Your task to perform on an android device: Search for pizza restaurants on Maps Image 0: 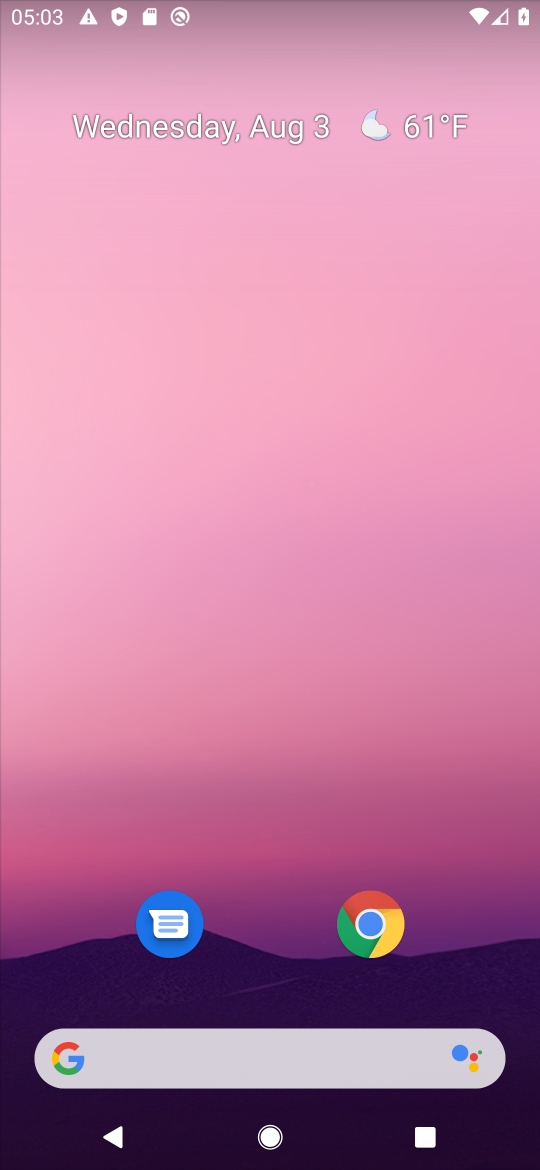
Step 0: drag from (277, 796) to (270, 282)
Your task to perform on an android device: Search for pizza restaurants on Maps Image 1: 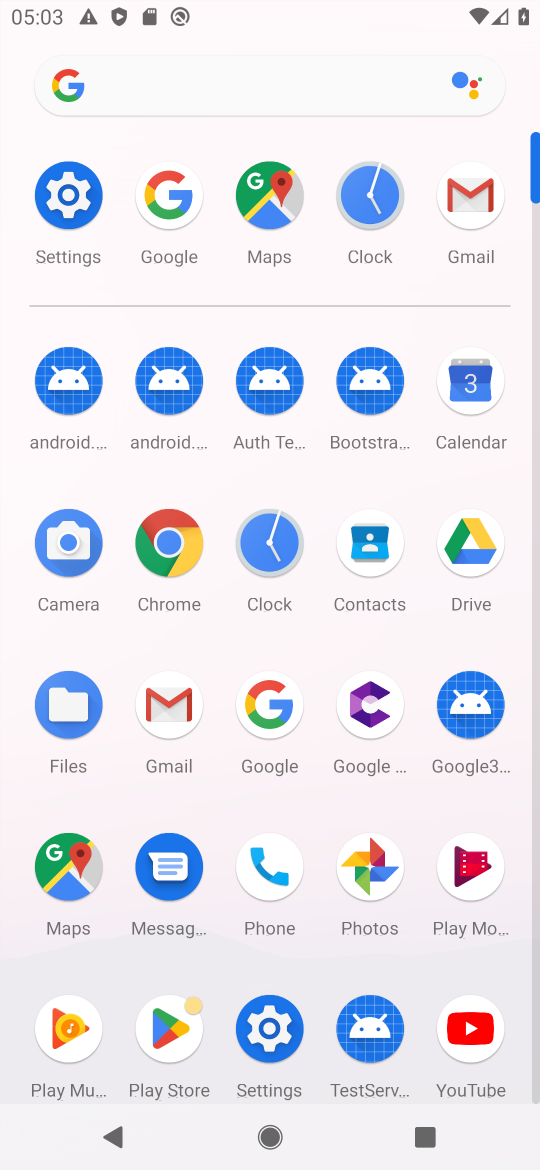
Step 1: click (252, 200)
Your task to perform on an android device: Search for pizza restaurants on Maps Image 2: 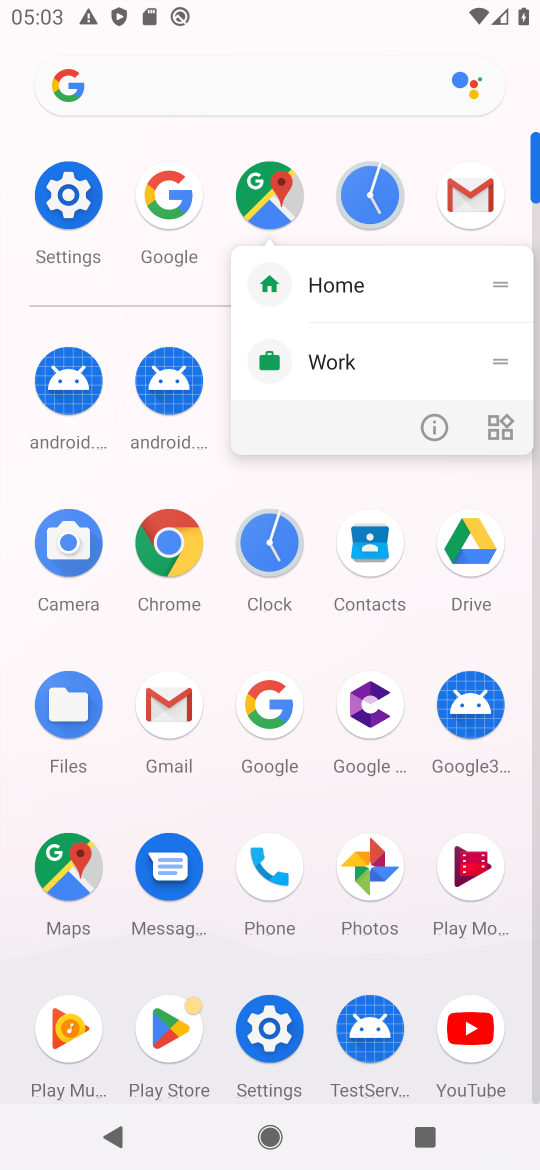
Step 2: click (252, 200)
Your task to perform on an android device: Search for pizza restaurants on Maps Image 3: 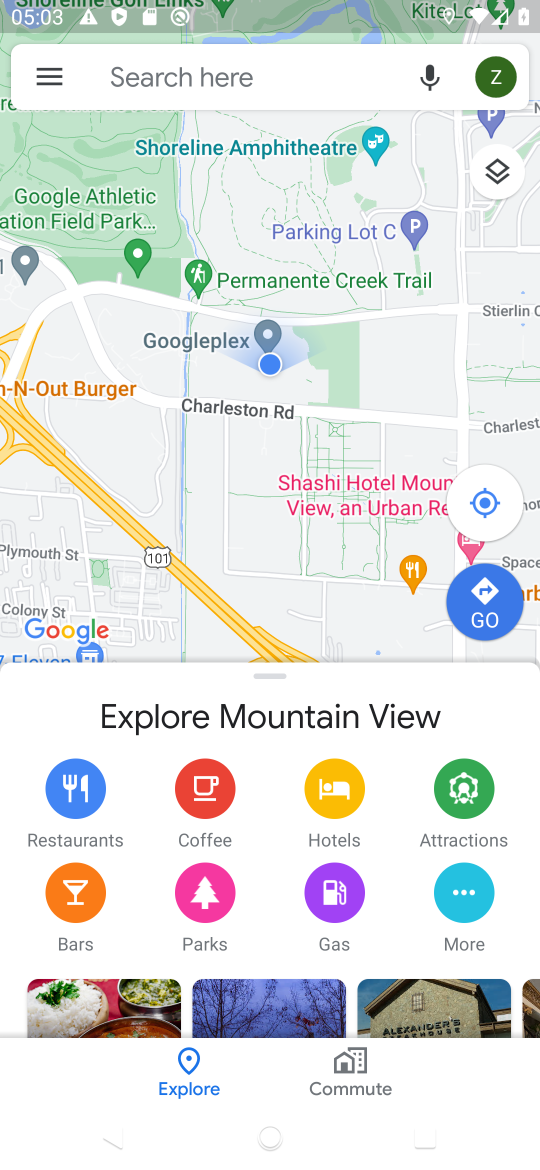
Step 3: click (243, 59)
Your task to perform on an android device: Search for pizza restaurants on Maps Image 4: 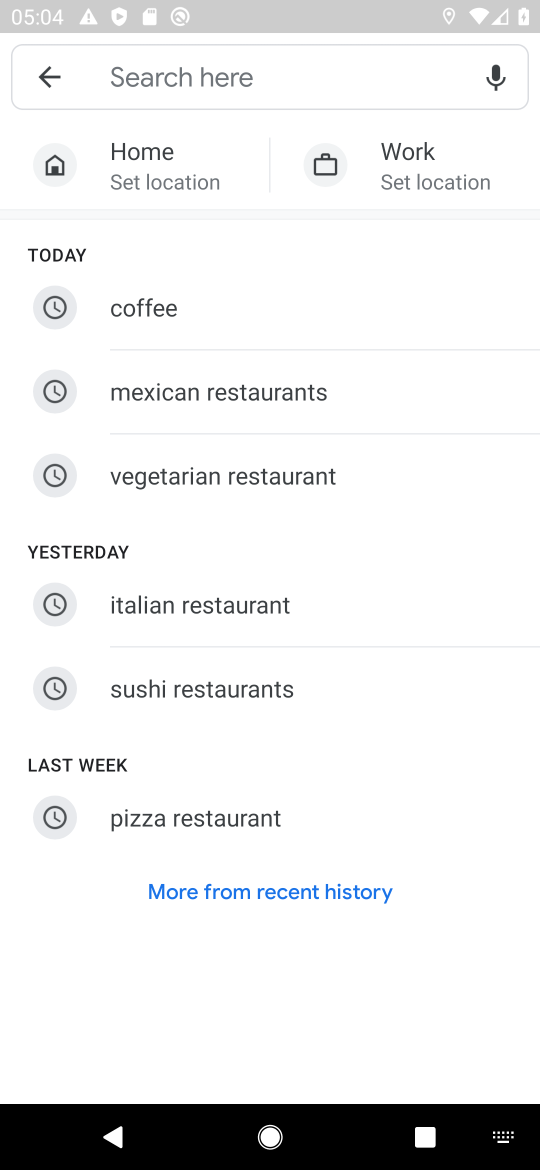
Step 4: type " pizza restaurants "
Your task to perform on an android device: Search for pizza restaurants on Maps Image 5: 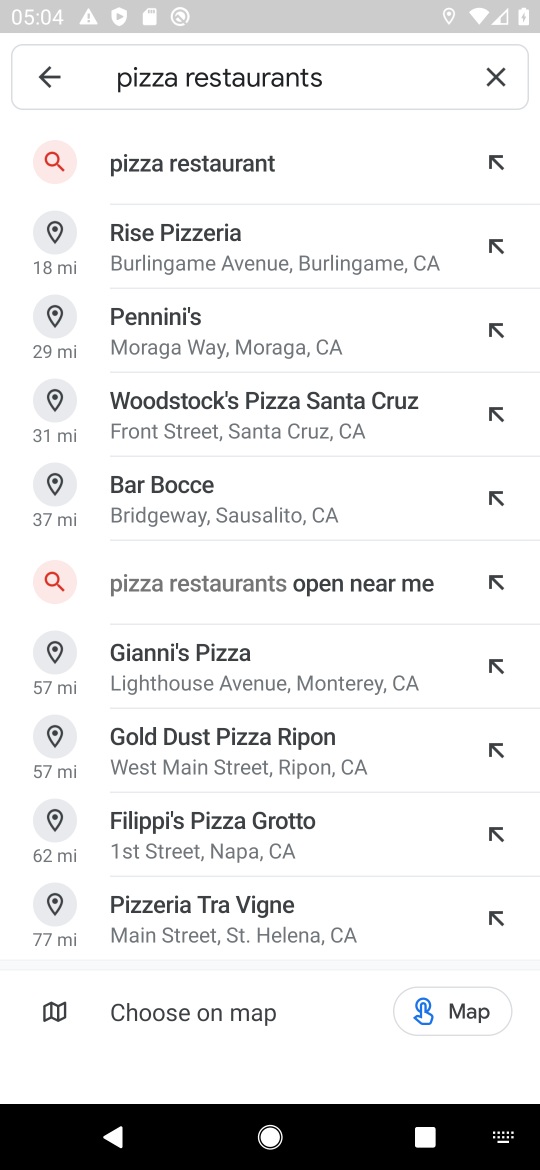
Step 5: click (216, 186)
Your task to perform on an android device: Search for pizza restaurants on Maps Image 6: 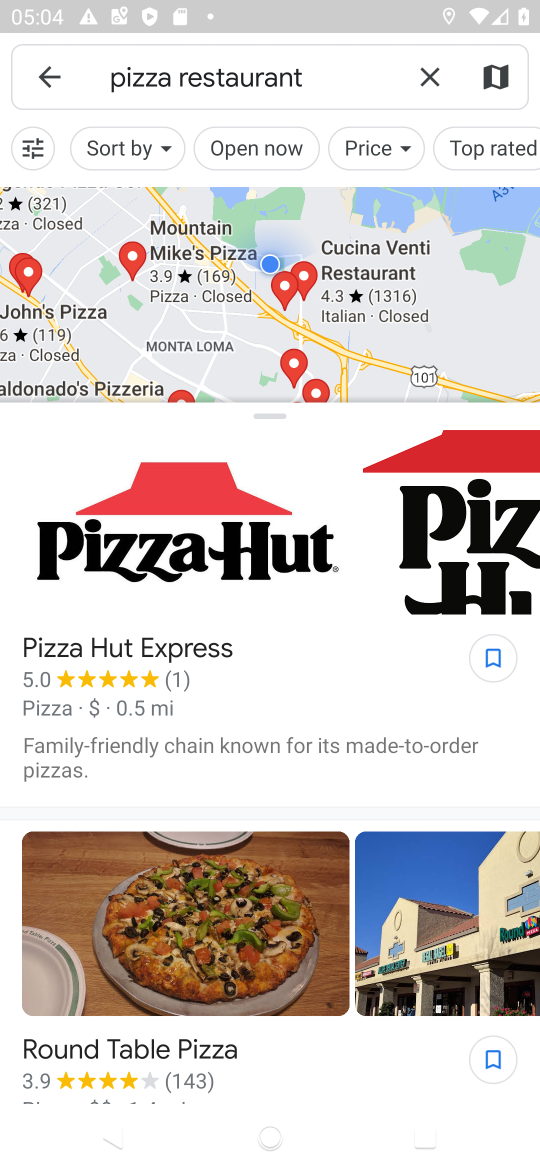
Step 6: task complete